Your task to perform on an android device: open chrome privacy settings Image 0: 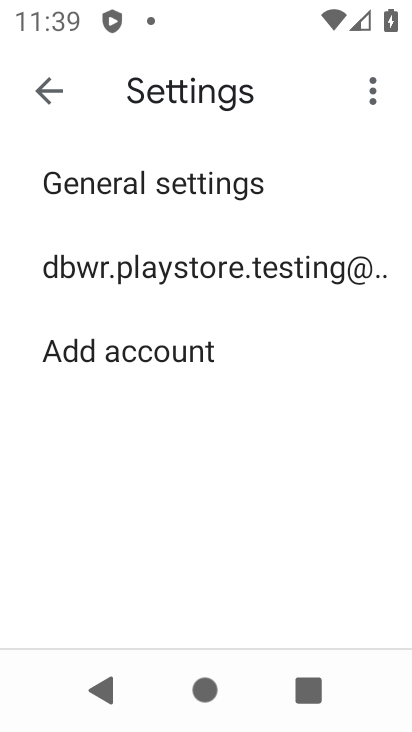
Step 0: press home button
Your task to perform on an android device: open chrome privacy settings Image 1: 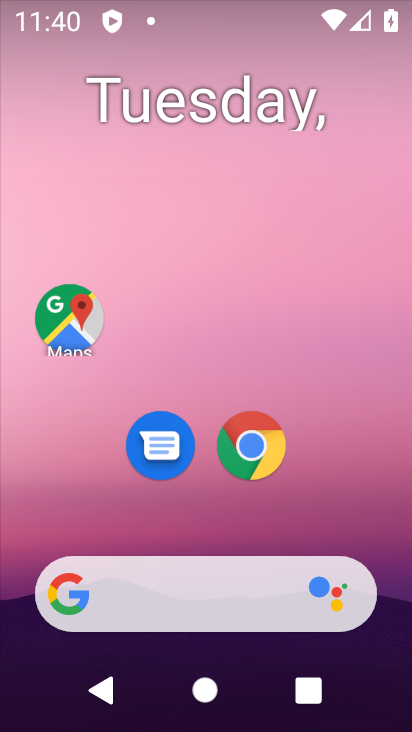
Step 1: click (256, 450)
Your task to perform on an android device: open chrome privacy settings Image 2: 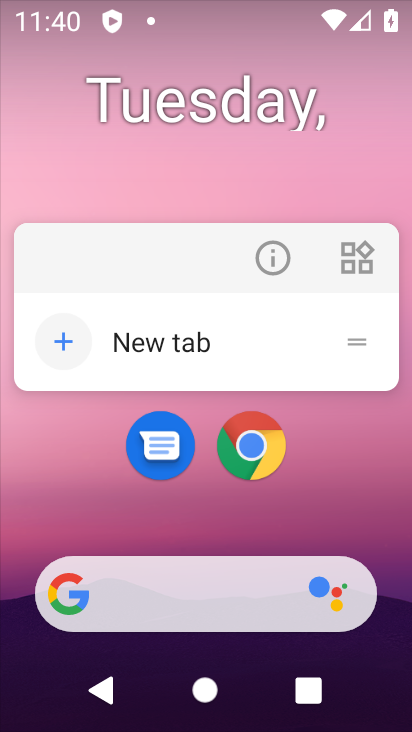
Step 2: click (256, 450)
Your task to perform on an android device: open chrome privacy settings Image 3: 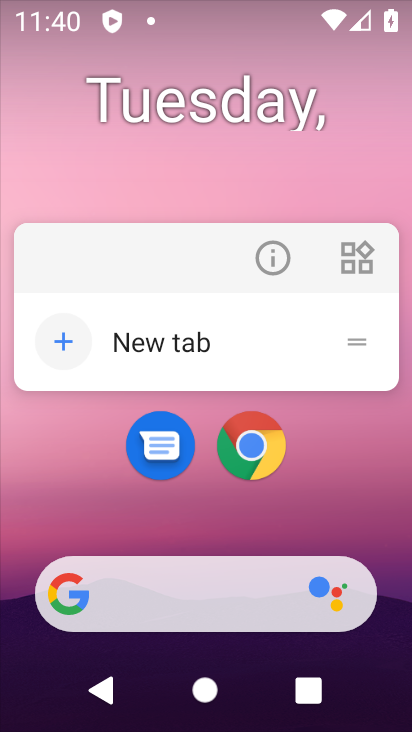
Step 3: click (256, 450)
Your task to perform on an android device: open chrome privacy settings Image 4: 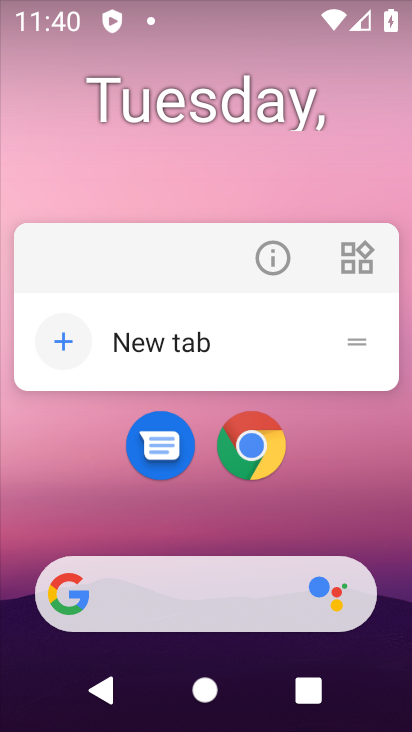
Step 4: click (256, 450)
Your task to perform on an android device: open chrome privacy settings Image 5: 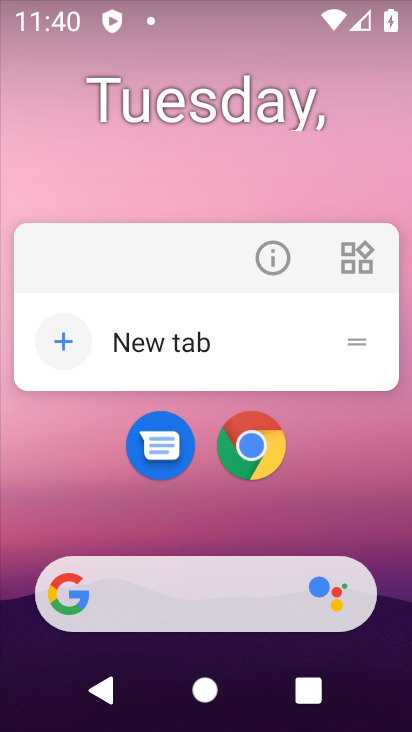
Step 5: click (248, 439)
Your task to perform on an android device: open chrome privacy settings Image 6: 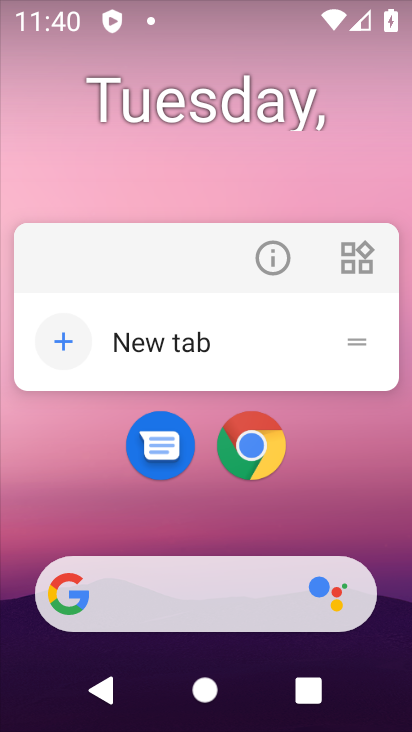
Step 6: click (248, 439)
Your task to perform on an android device: open chrome privacy settings Image 7: 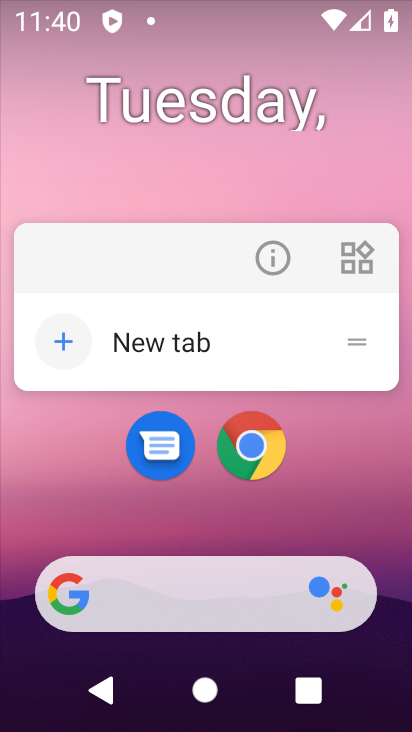
Step 7: click (248, 439)
Your task to perform on an android device: open chrome privacy settings Image 8: 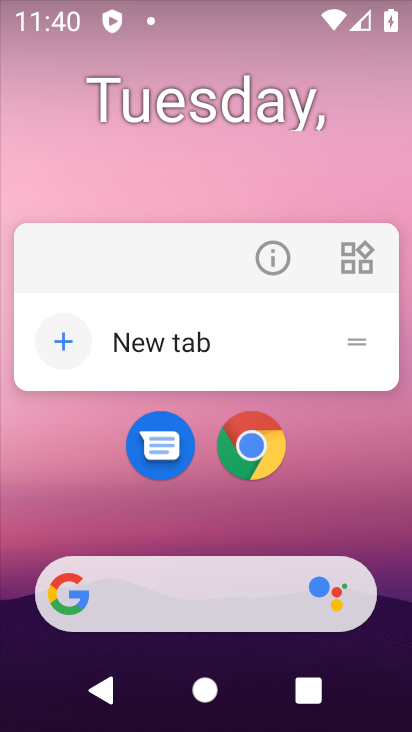
Step 8: click (248, 439)
Your task to perform on an android device: open chrome privacy settings Image 9: 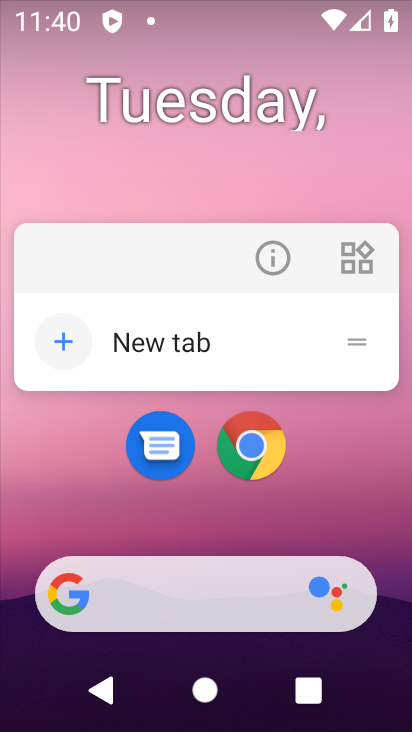
Step 9: click (267, 447)
Your task to perform on an android device: open chrome privacy settings Image 10: 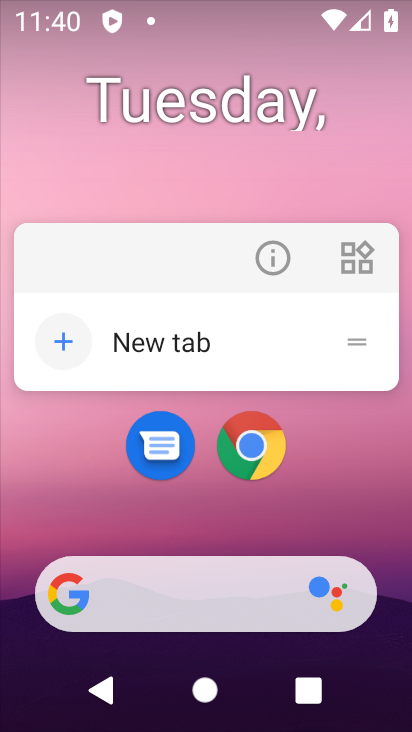
Step 10: click (267, 447)
Your task to perform on an android device: open chrome privacy settings Image 11: 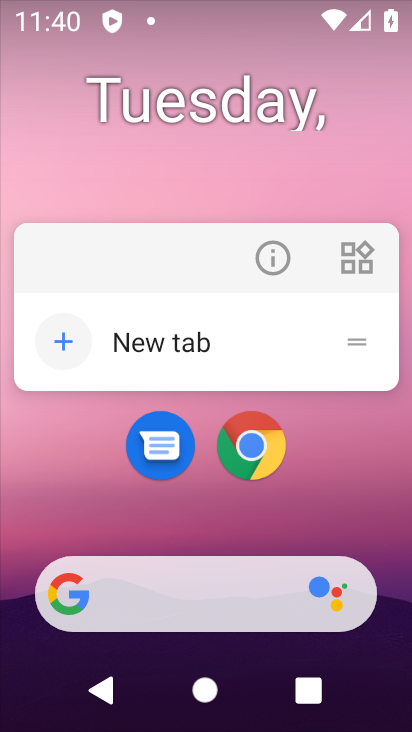
Step 11: click (249, 456)
Your task to perform on an android device: open chrome privacy settings Image 12: 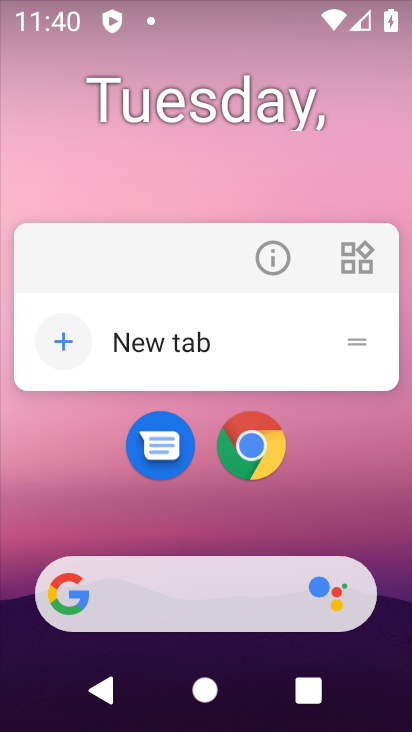
Step 12: click (249, 456)
Your task to perform on an android device: open chrome privacy settings Image 13: 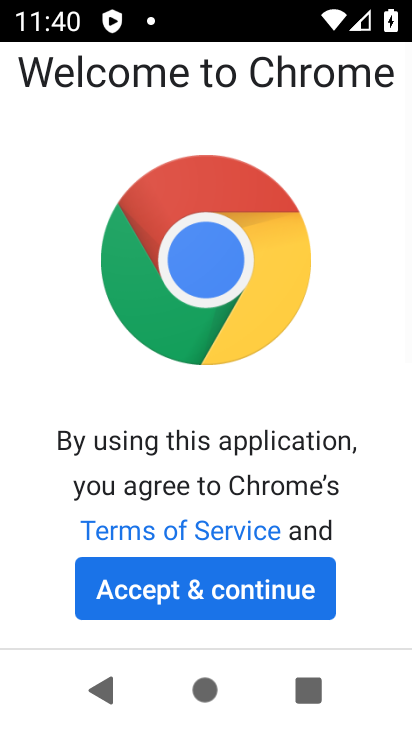
Step 13: click (251, 576)
Your task to perform on an android device: open chrome privacy settings Image 14: 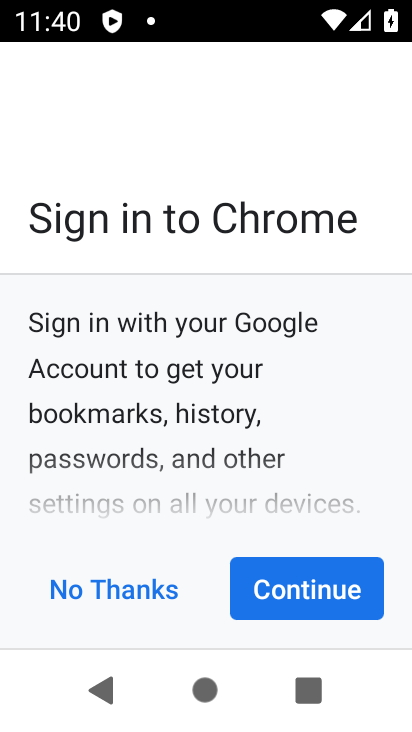
Step 14: click (251, 576)
Your task to perform on an android device: open chrome privacy settings Image 15: 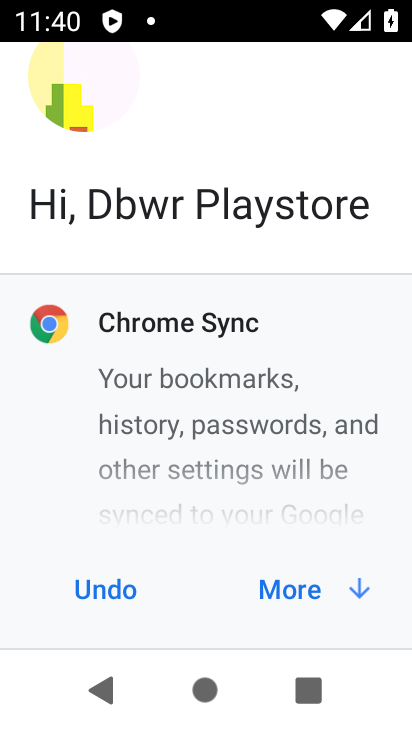
Step 15: click (292, 579)
Your task to perform on an android device: open chrome privacy settings Image 16: 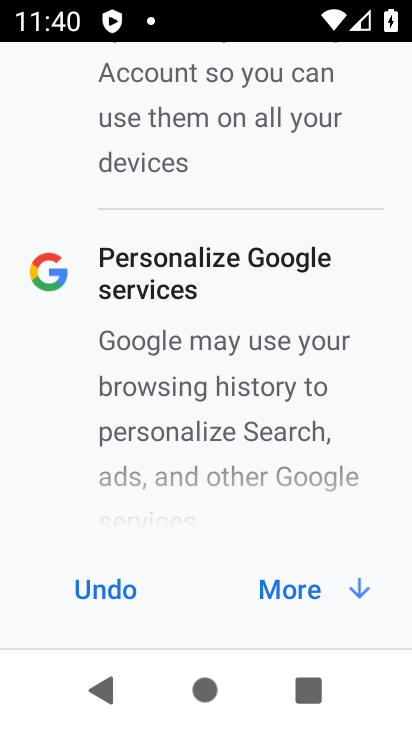
Step 16: click (292, 579)
Your task to perform on an android device: open chrome privacy settings Image 17: 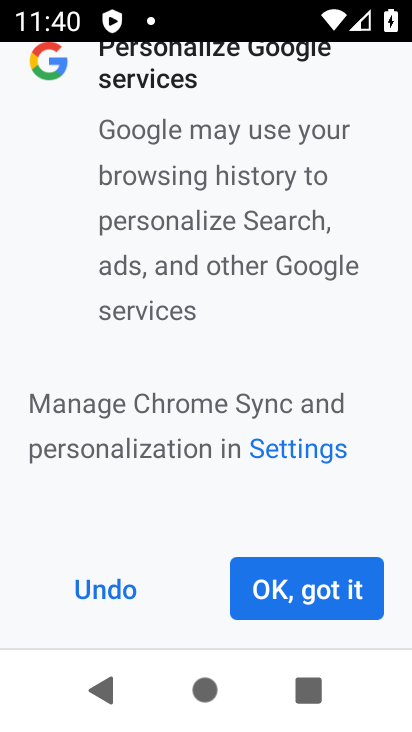
Step 17: click (292, 579)
Your task to perform on an android device: open chrome privacy settings Image 18: 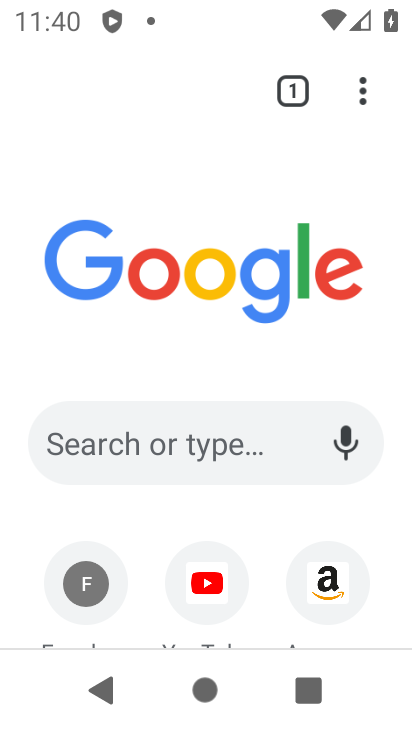
Step 18: drag from (357, 97) to (139, 475)
Your task to perform on an android device: open chrome privacy settings Image 19: 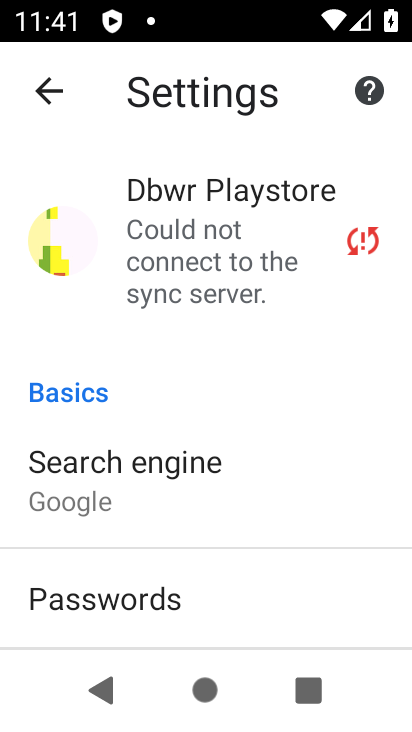
Step 19: drag from (238, 575) to (248, 167)
Your task to perform on an android device: open chrome privacy settings Image 20: 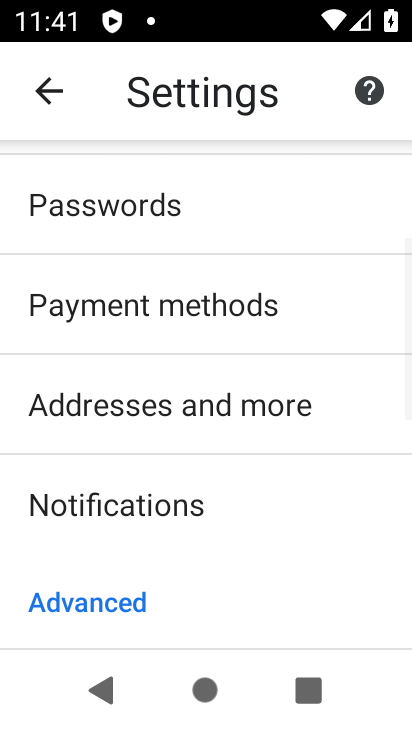
Step 20: drag from (191, 588) to (213, 288)
Your task to perform on an android device: open chrome privacy settings Image 21: 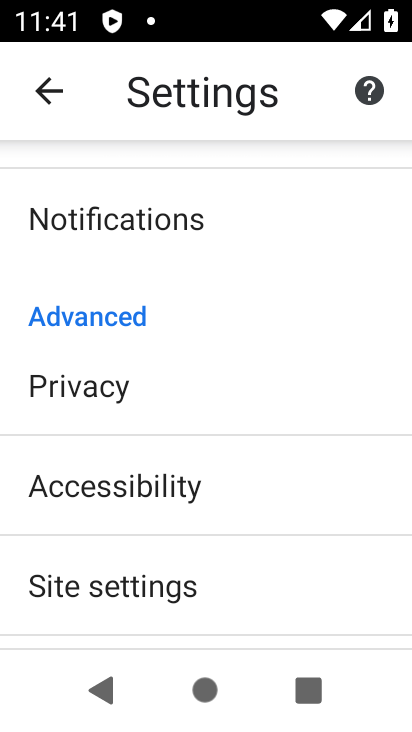
Step 21: click (103, 389)
Your task to perform on an android device: open chrome privacy settings Image 22: 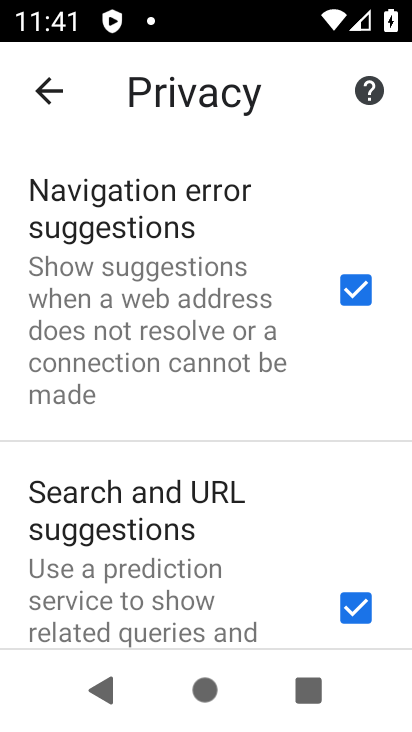
Step 22: task complete